Your task to perform on an android device: set the stopwatch Image 0: 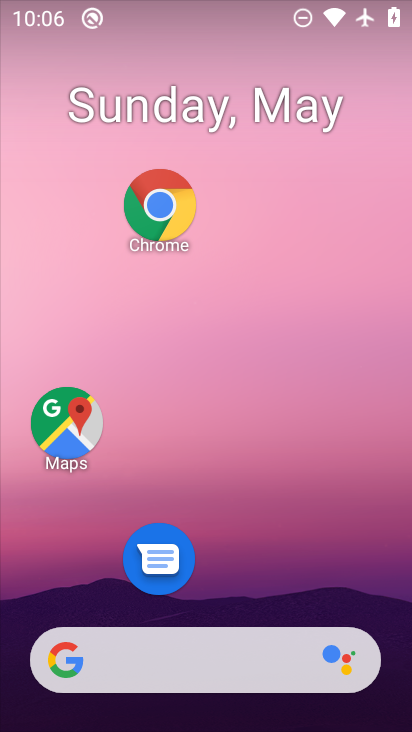
Step 0: press home button
Your task to perform on an android device: set the stopwatch Image 1: 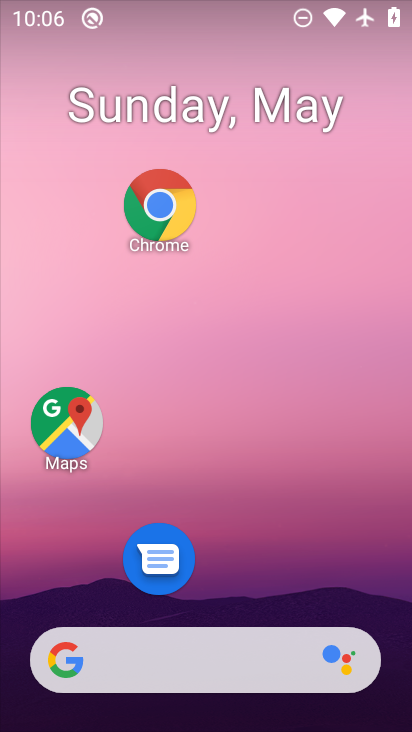
Step 1: drag from (307, 608) to (293, 321)
Your task to perform on an android device: set the stopwatch Image 2: 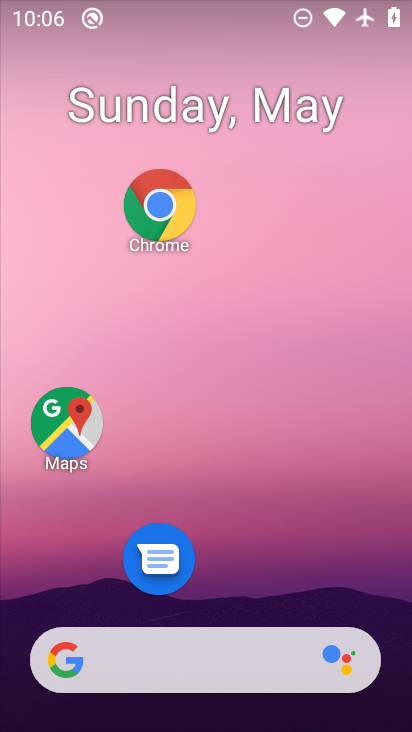
Step 2: drag from (285, 614) to (276, 69)
Your task to perform on an android device: set the stopwatch Image 3: 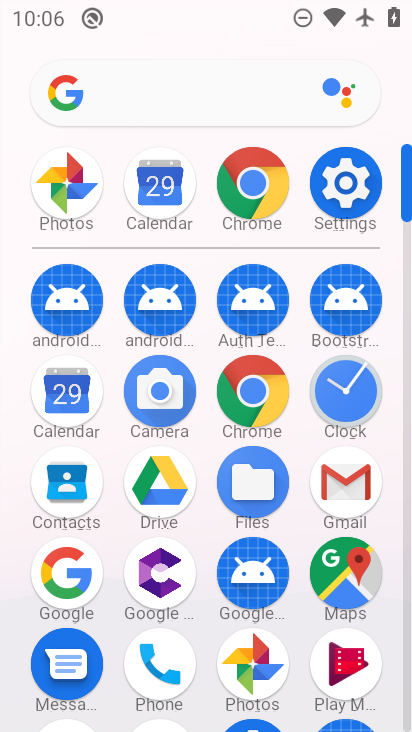
Step 3: click (349, 400)
Your task to perform on an android device: set the stopwatch Image 4: 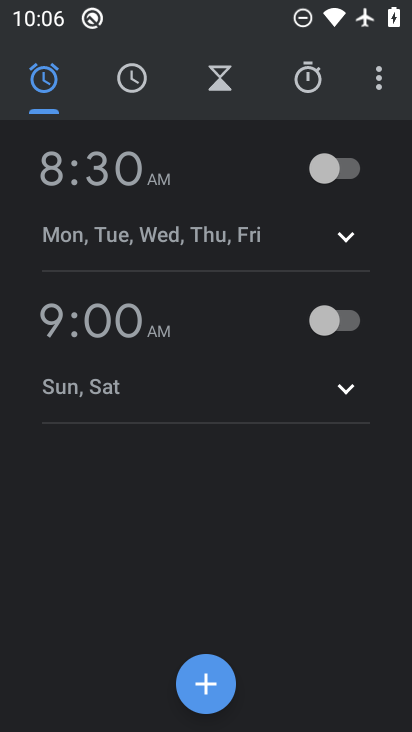
Step 4: click (304, 82)
Your task to perform on an android device: set the stopwatch Image 5: 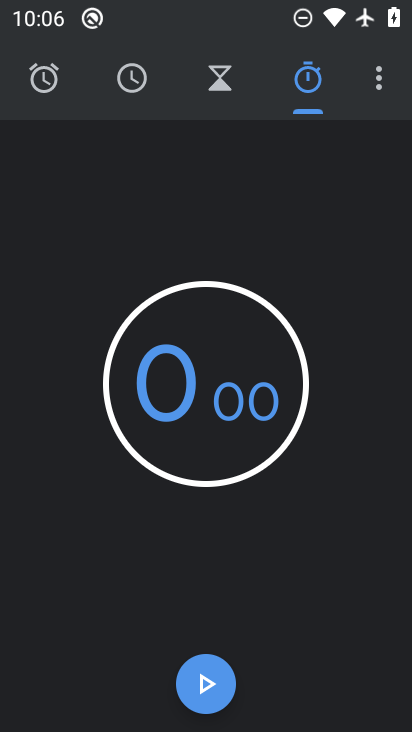
Step 5: click (219, 402)
Your task to perform on an android device: set the stopwatch Image 6: 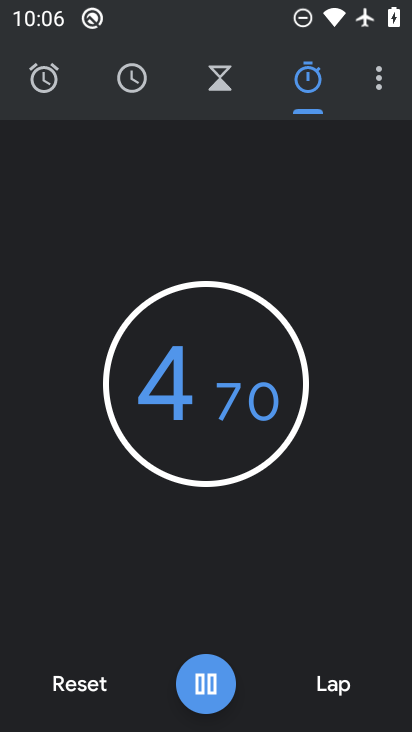
Step 6: task complete